Your task to perform on an android device: open the mobile data screen to see how much data has been used Image 0: 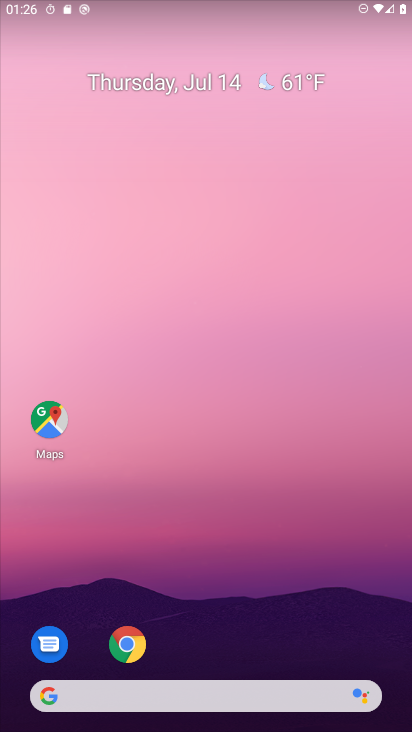
Step 0: drag from (327, 552) to (251, 113)
Your task to perform on an android device: open the mobile data screen to see how much data has been used Image 1: 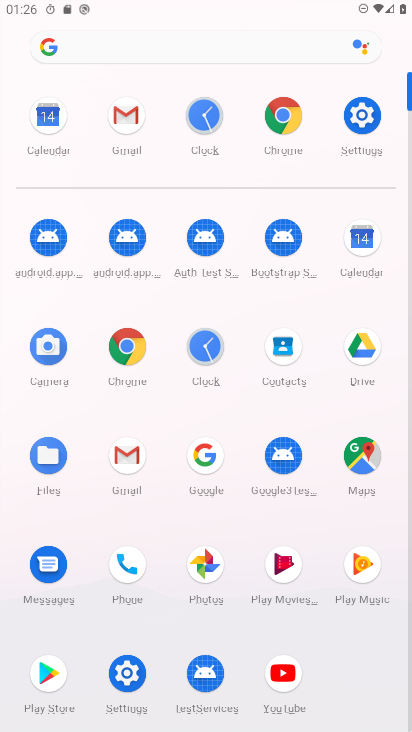
Step 1: click (361, 118)
Your task to perform on an android device: open the mobile data screen to see how much data has been used Image 2: 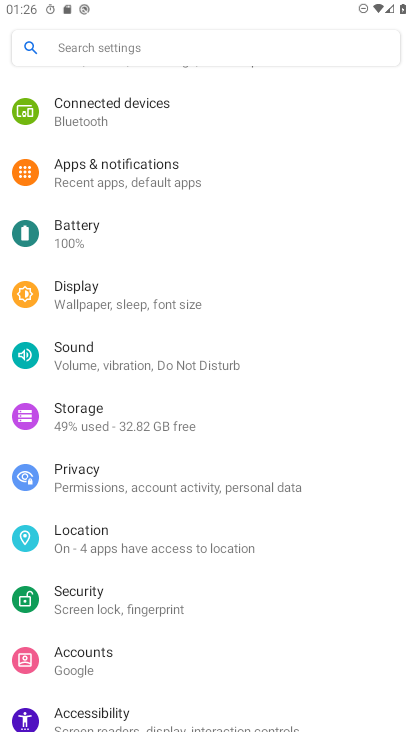
Step 2: drag from (192, 206) to (189, 566)
Your task to perform on an android device: open the mobile data screen to see how much data has been used Image 3: 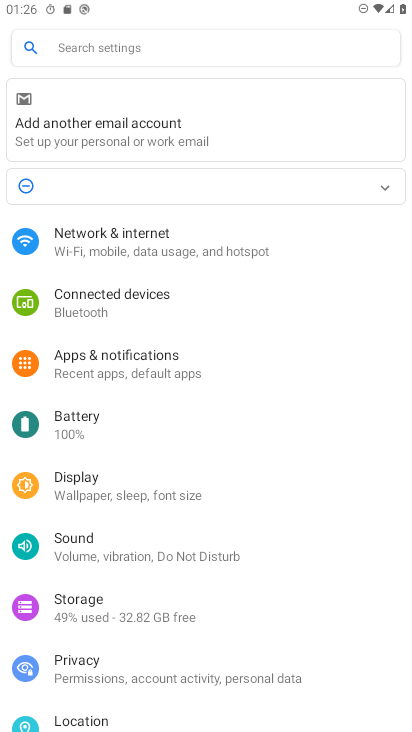
Step 3: click (145, 236)
Your task to perform on an android device: open the mobile data screen to see how much data has been used Image 4: 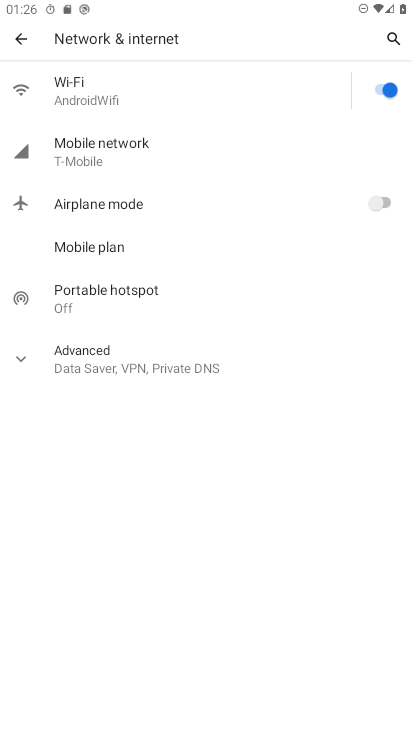
Step 4: click (149, 157)
Your task to perform on an android device: open the mobile data screen to see how much data has been used Image 5: 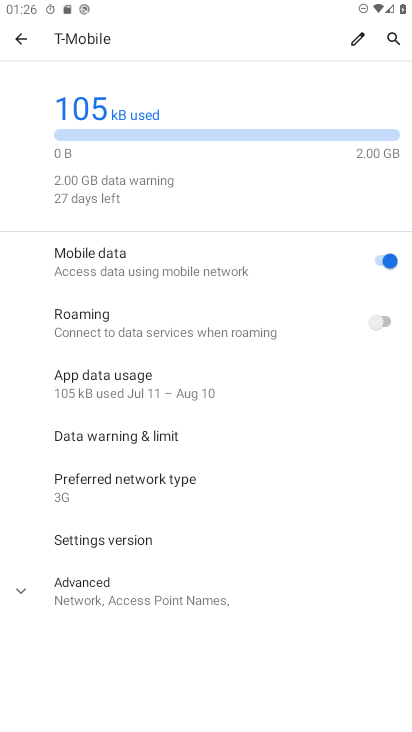
Step 5: task complete